Your task to perform on an android device: turn on improve location accuracy Image 0: 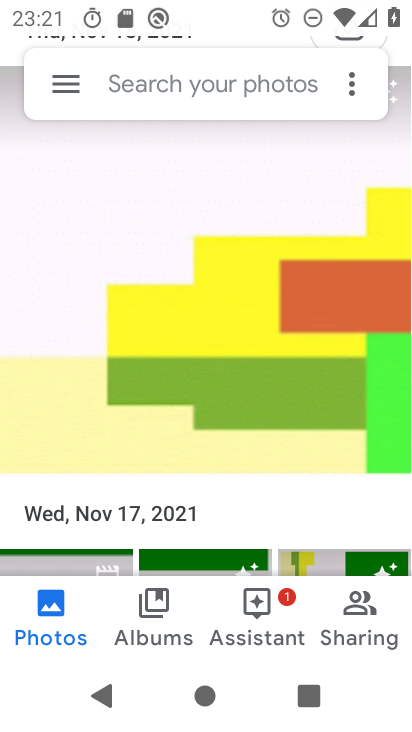
Step 0: press home button
Your task to perform on an android device: turn on improve location accuracy Image 1: 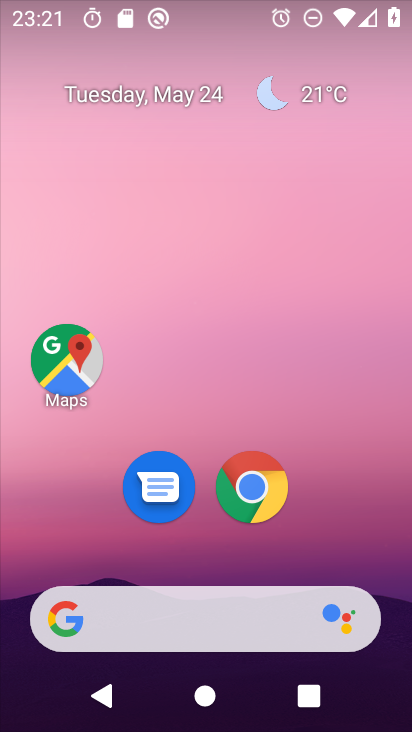
Step 1: drag from (338, 579) to (333, 0)
Your task to perform on an android device: turn on improve location accuracy Image 2: 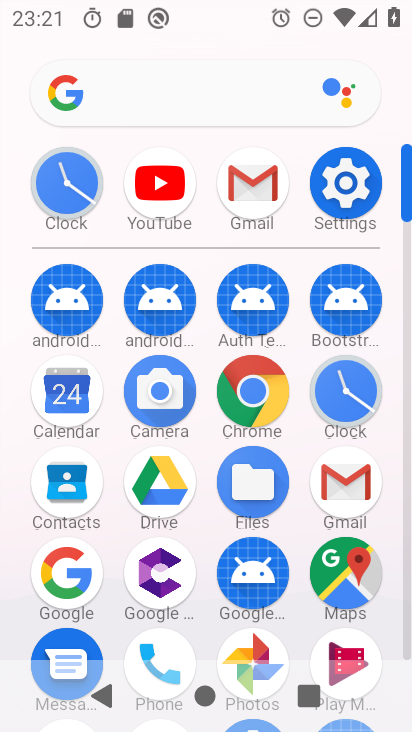
Step 2: click (352, 188)
Your task to perform on an android device: turn on improve location accuracy Image 3: 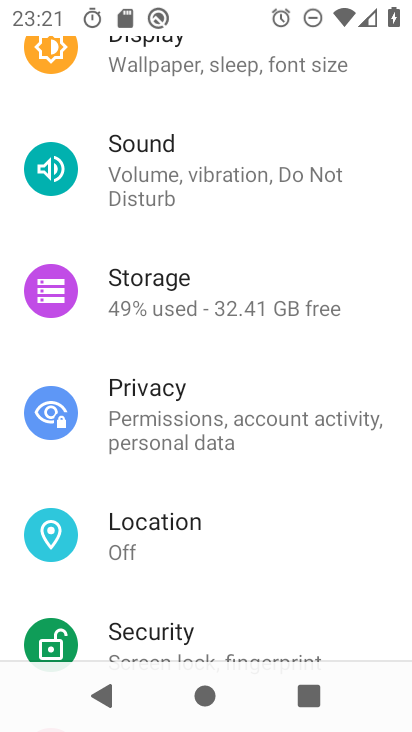
Step 3: click (149, 533)
Your task to perform on an android device: turn on improve location accuracy Image 4: 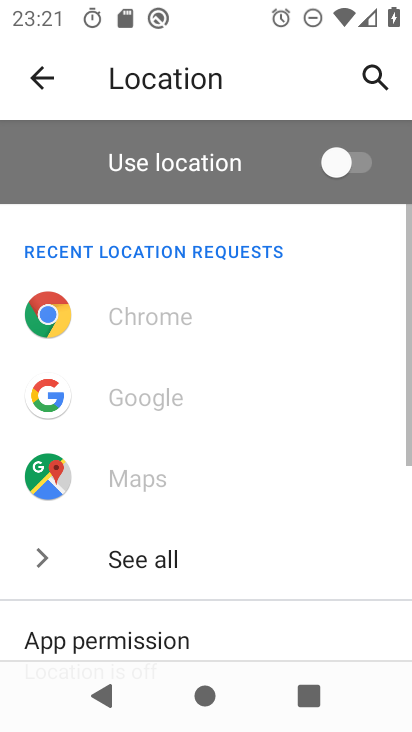
Step 4: drag from (239, 543) to (233, 273)
Your task to perform on an android device: turn on improve location accuracy Image 5: 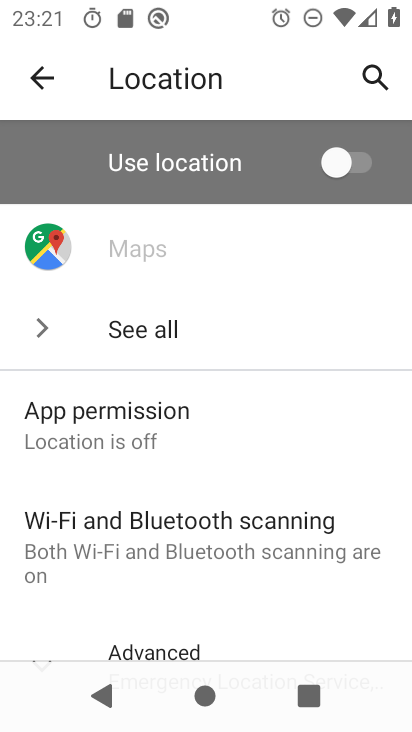
Step 5: drag from (172, 583) to (178, 231)
Your task to perform on an android device: turn on improve location accuracy Image 6: 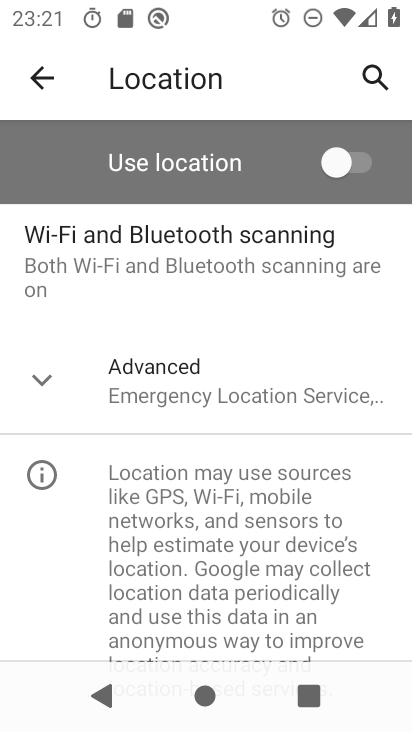
Step 6: click (41, 382)
Your task to perform on an android device: turn on improve location accuracy Image 7: 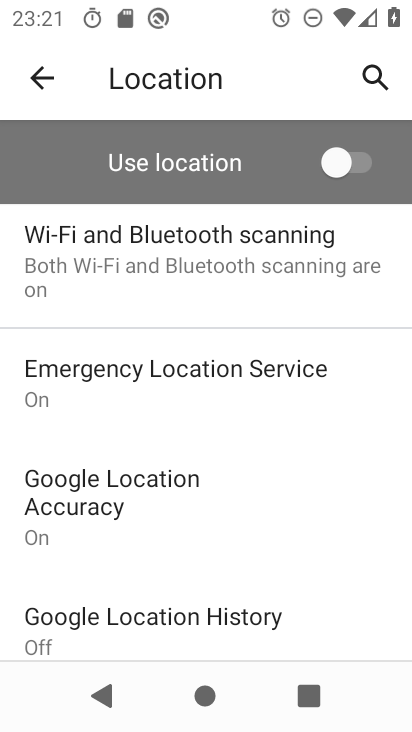
Step 7: click (91, 495)
Your task to perform on an android device: turn on improve location accuracy Image 8: 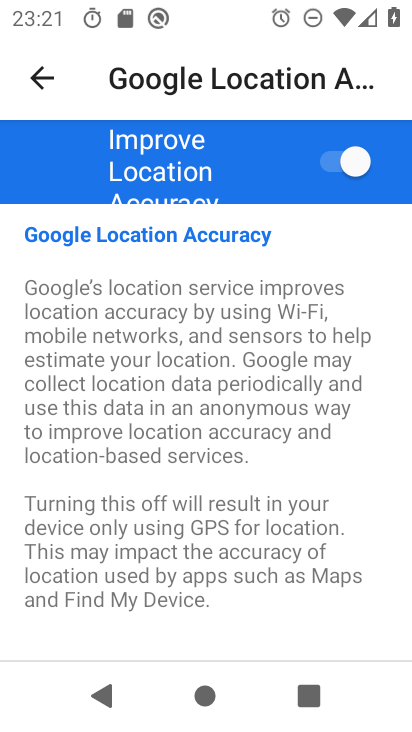
Step 8: task complete